Your task to perform on an android device: refresh tabs in the chrome app Image 0: 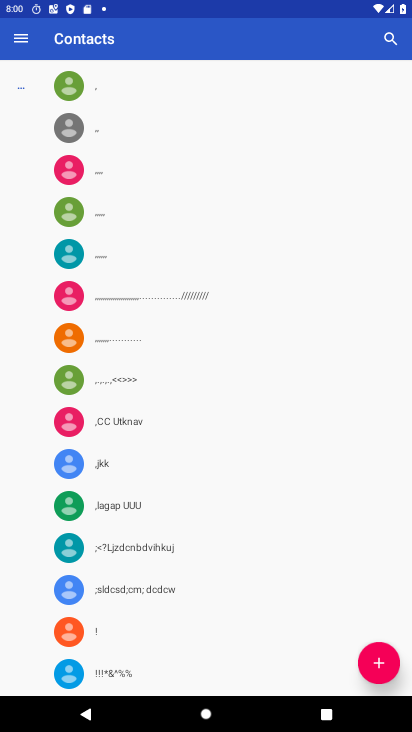
Step 0: press home button
Your task to perform on an android device: refresh tabs in the chrome app Image 1: 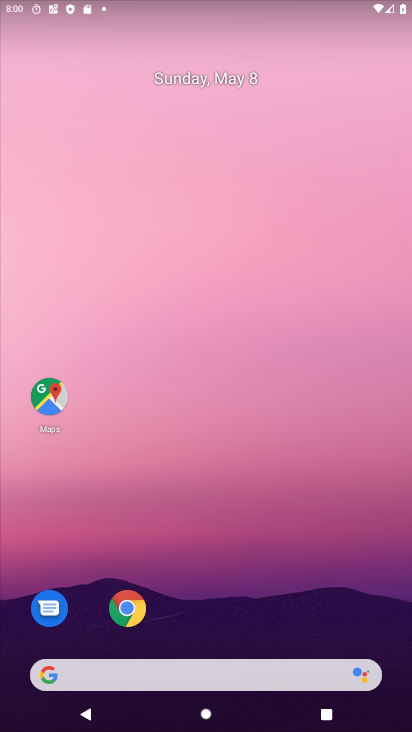
Step 1: click (118, 616)
Your task to perform on an android device: refresh tabs in the chrome app Image 2: 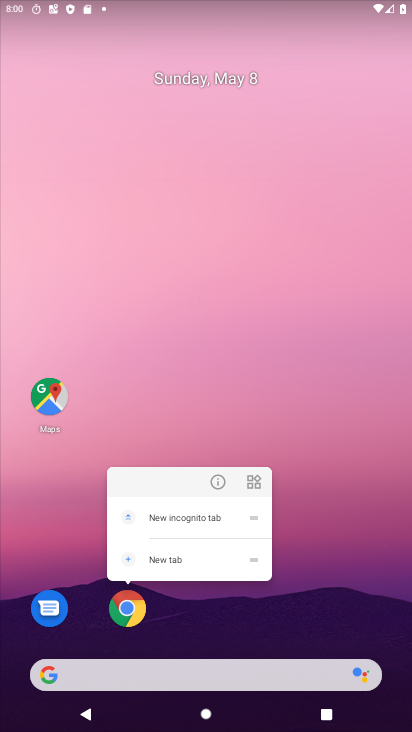
Step 2: click (131, 614)
Your task to perform on an android device: refresh tabs in the chrome app Image 3: 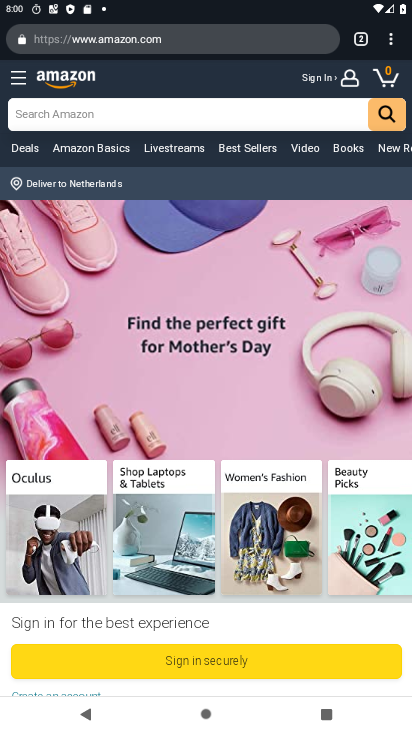
Step 3: click (390, 47)
Your task to perform on an android device: refresh tabs in the chrome app Image 4: 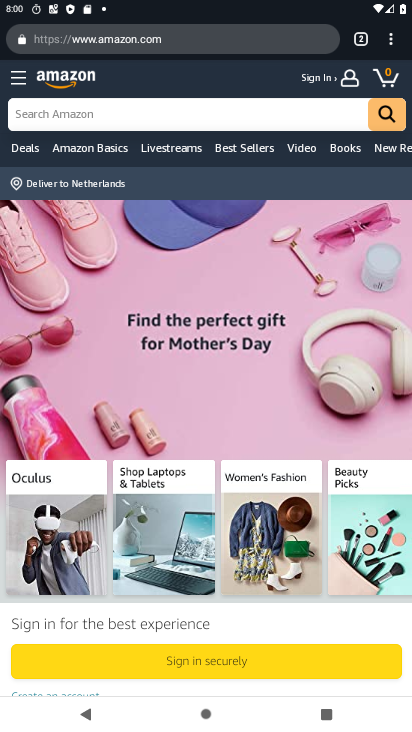
Step 4: task complete